Your task to perform on an android device: check google app version Image 0: 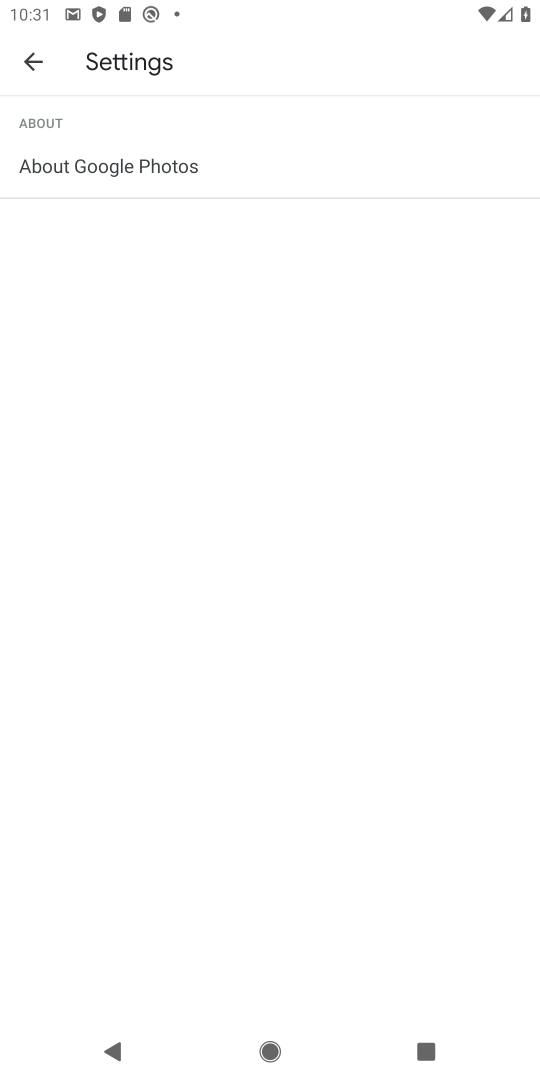
Step 0: press back button
Your task to perform on an android device: check google app version Image 1: 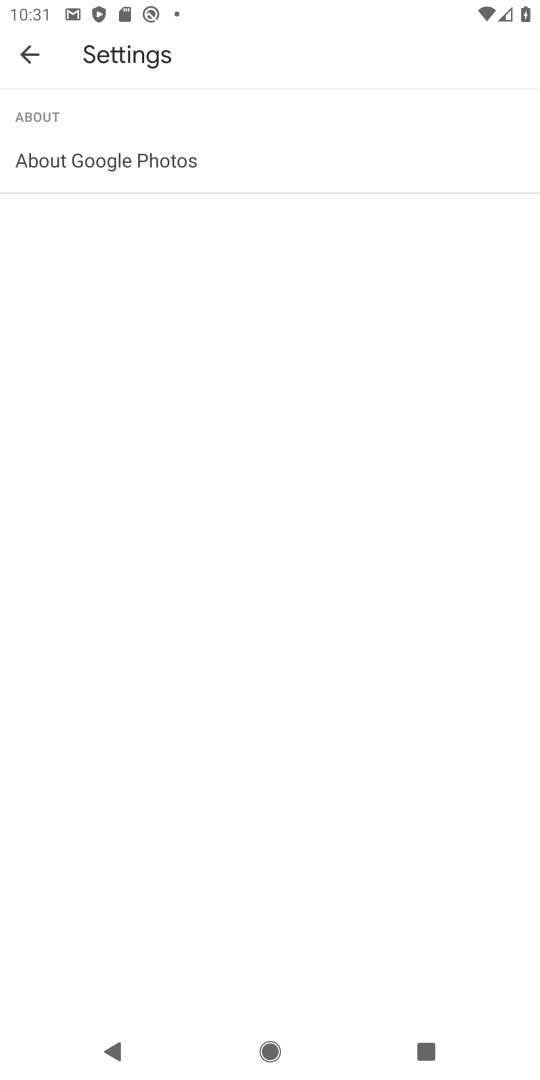
Step 1: press home button
Your task to perform on an android device: check google app version Image 2: 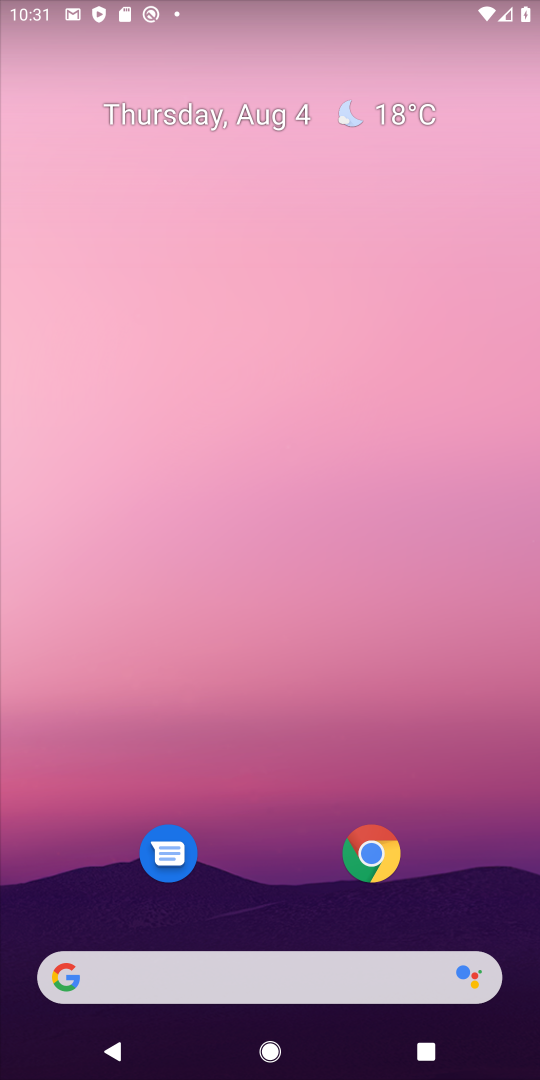
Step 2: drag from (278, 958) to (220, 337)
Your task to perform on an android device: check google app version Image 3: 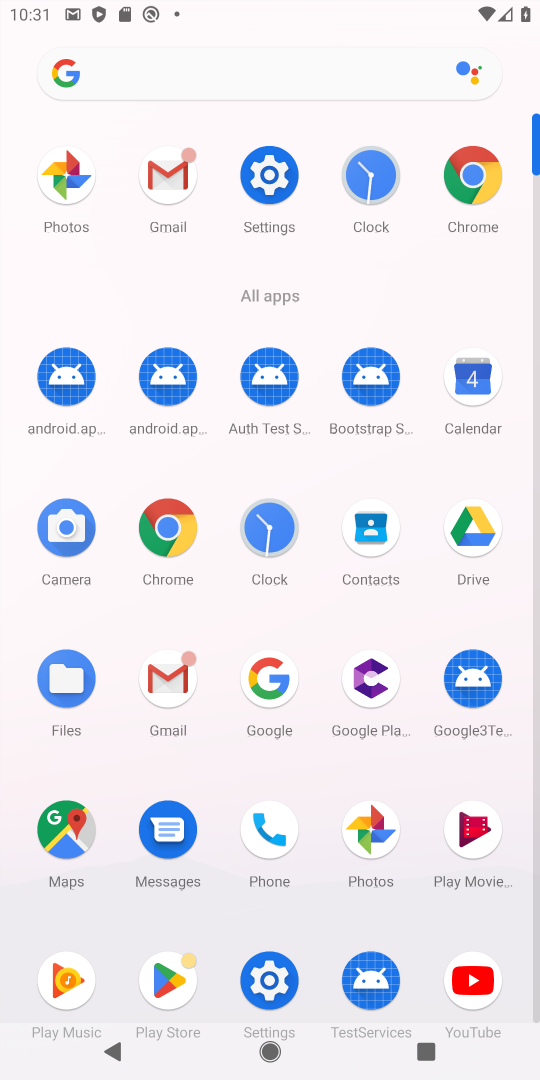
Step 3: click (262, 681)
Your task to perform on an android device: check google app version Image 4: 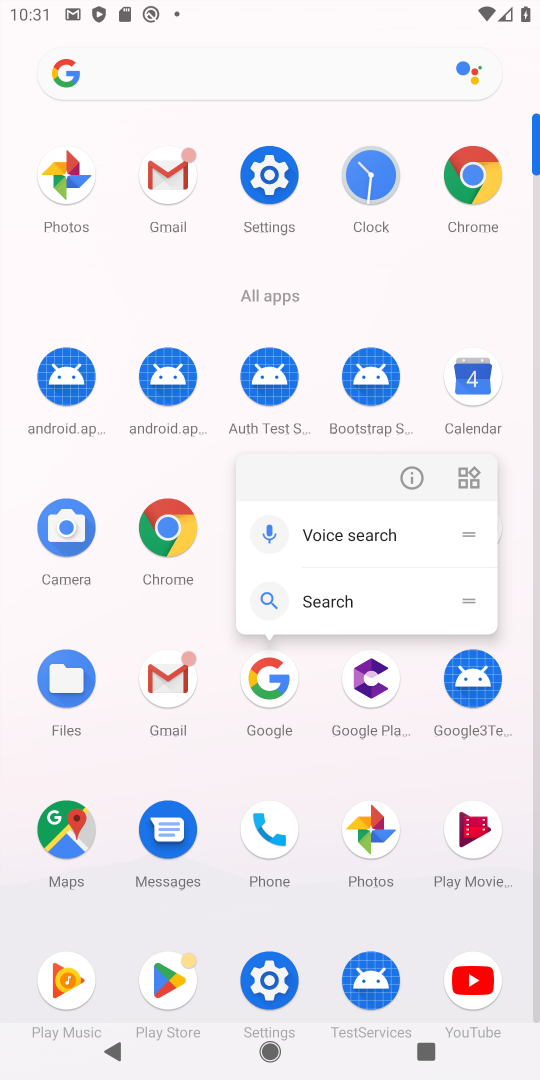
Step 4: click (402, 474)
Your task to perform on an android device: check google app version Image 5: 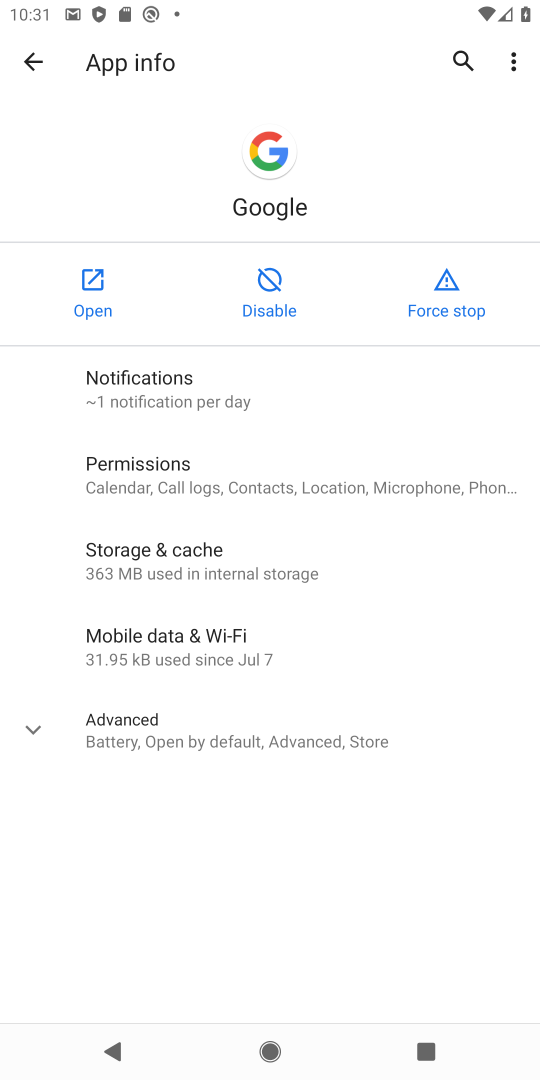
Step 5: click (249, 737)
Your task to perform on an android device: check google app version Image 6: 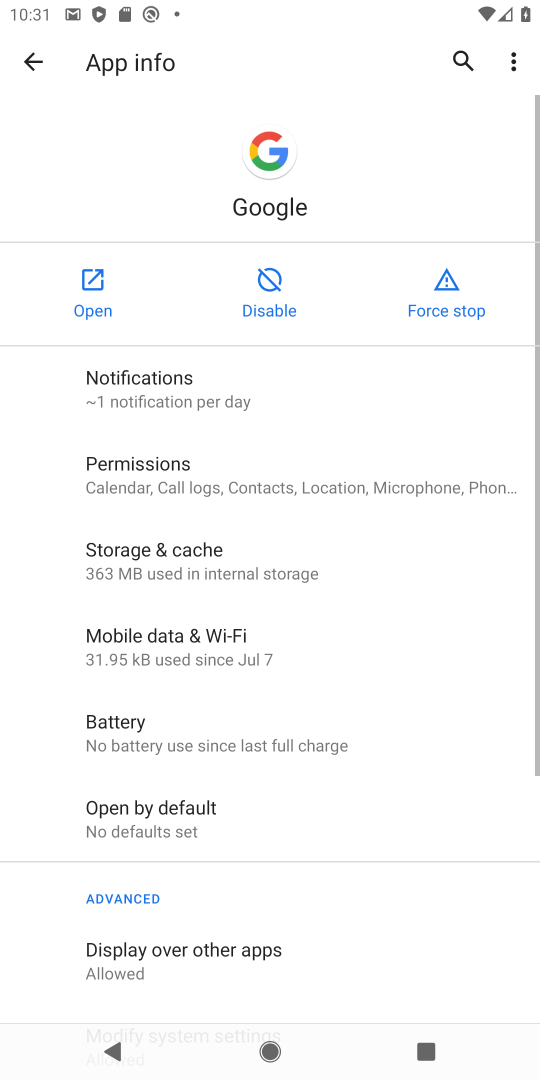
Step 6: task complete